Your task to perform on an android device: What is the speed of a plane? Image 0: 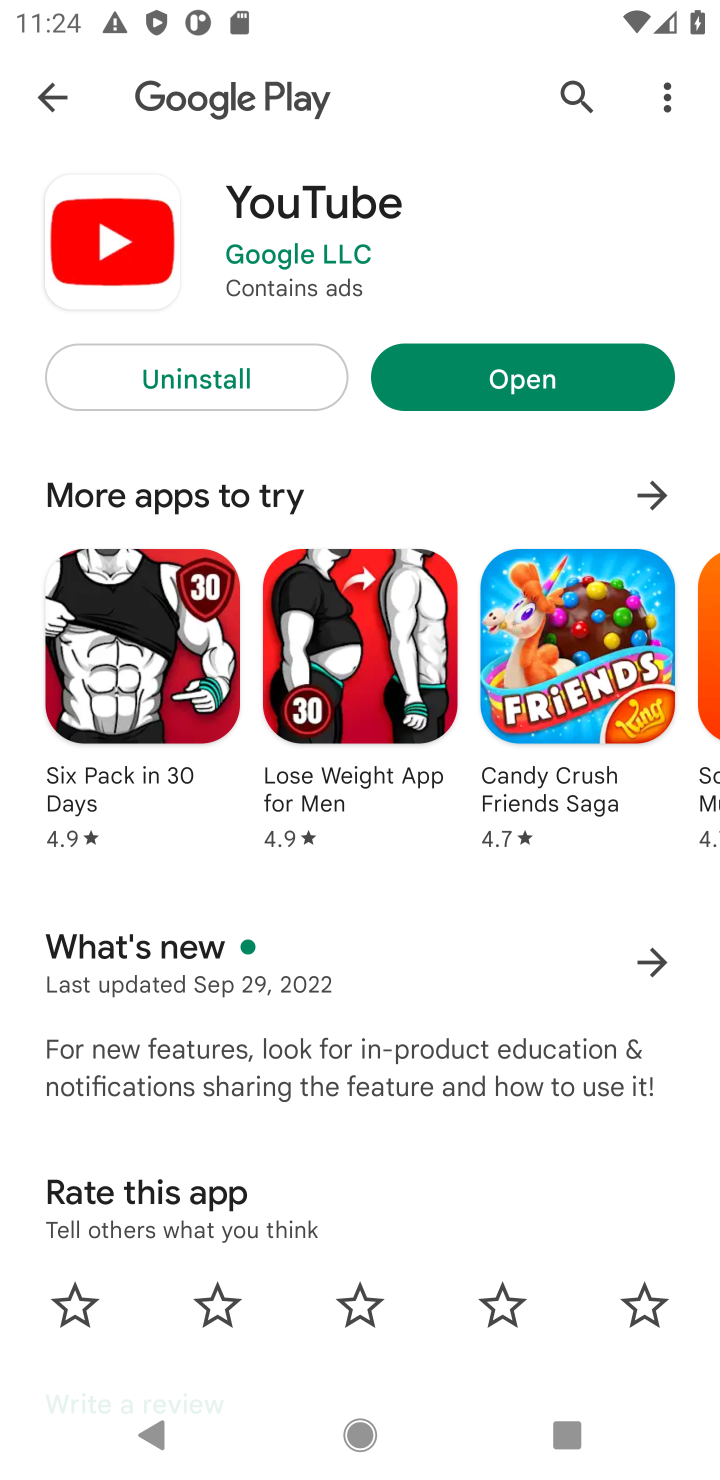
Step 0: press home button
Your task to perform on an android device: What is the speed of a plane? Image 1: 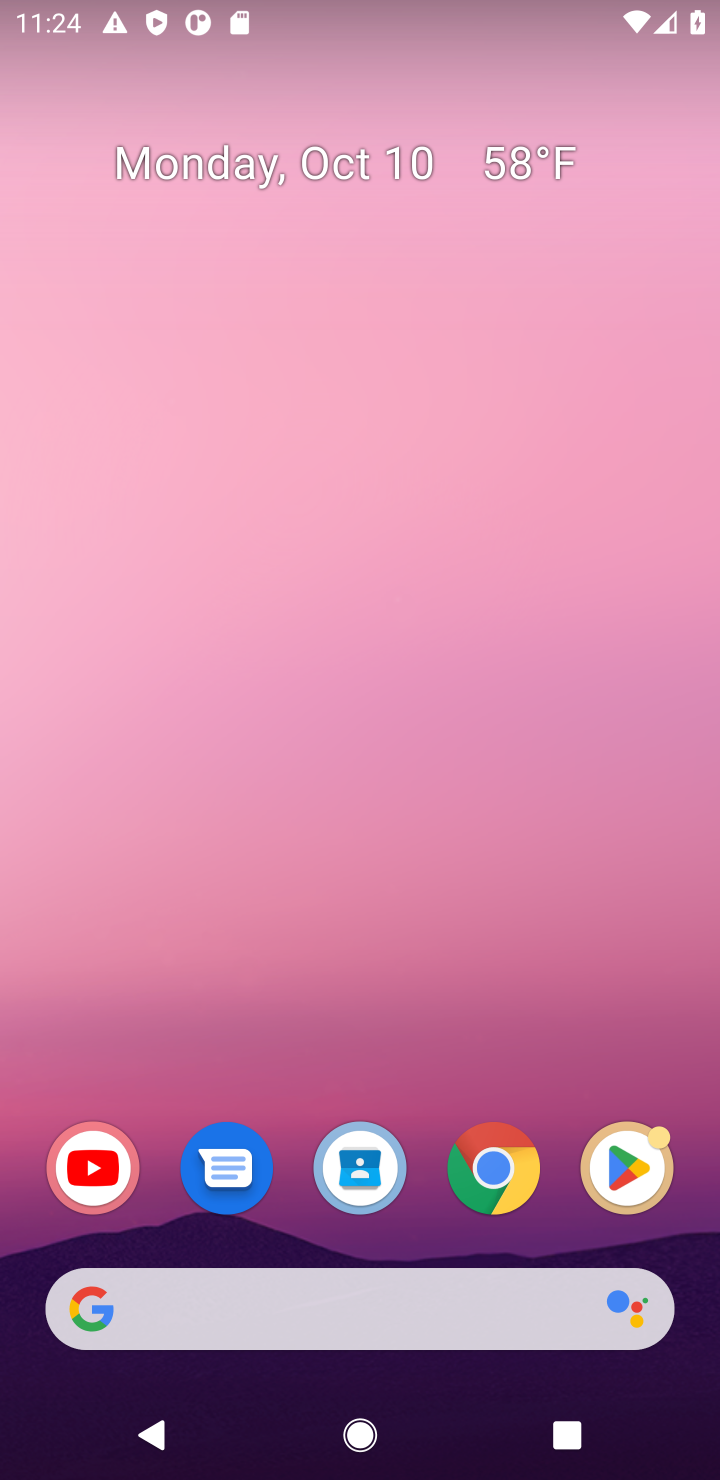
Step 1: click (268, 1300)
Your task to perform on an android device: What is the speed of a plane? Image 2: 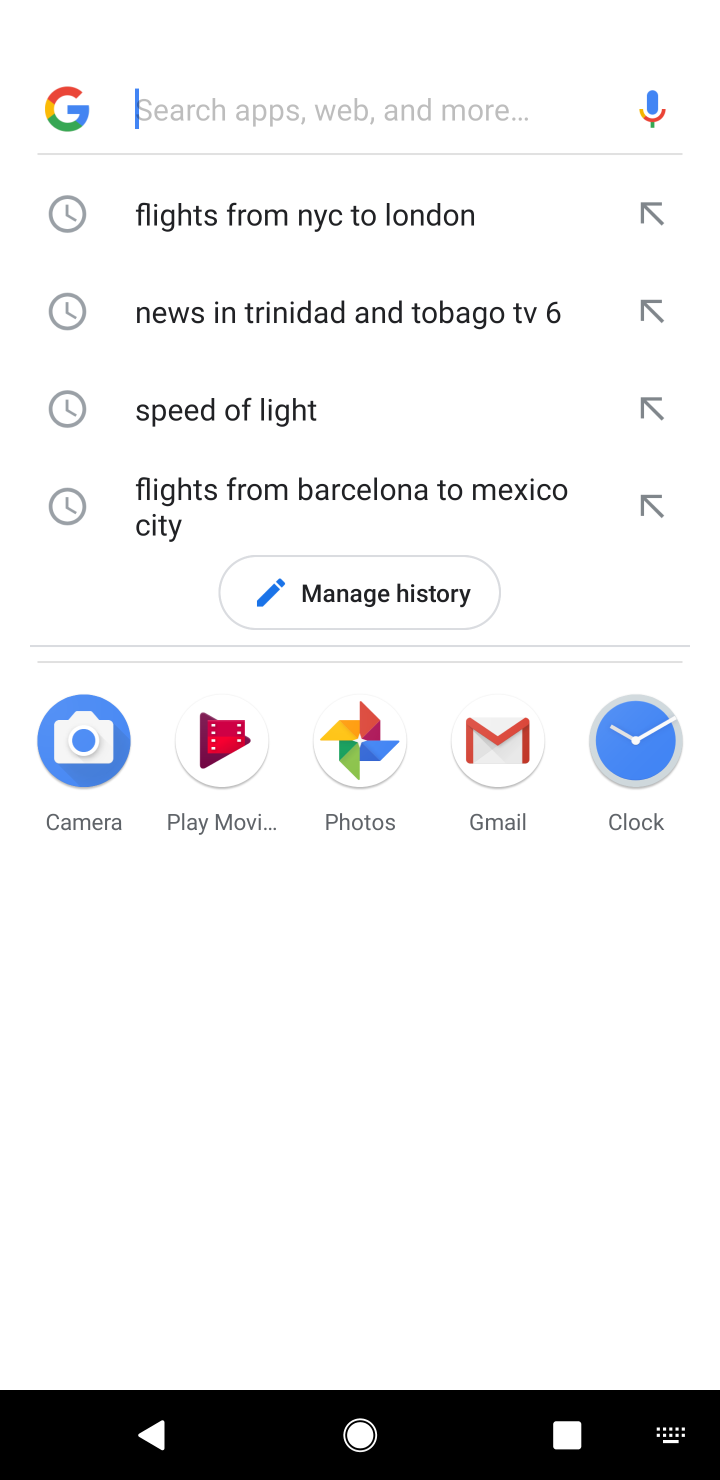
Step 2: type "speed of a plane?"
Your task to perform on an android device: What is the speed of a plane? Image 3: 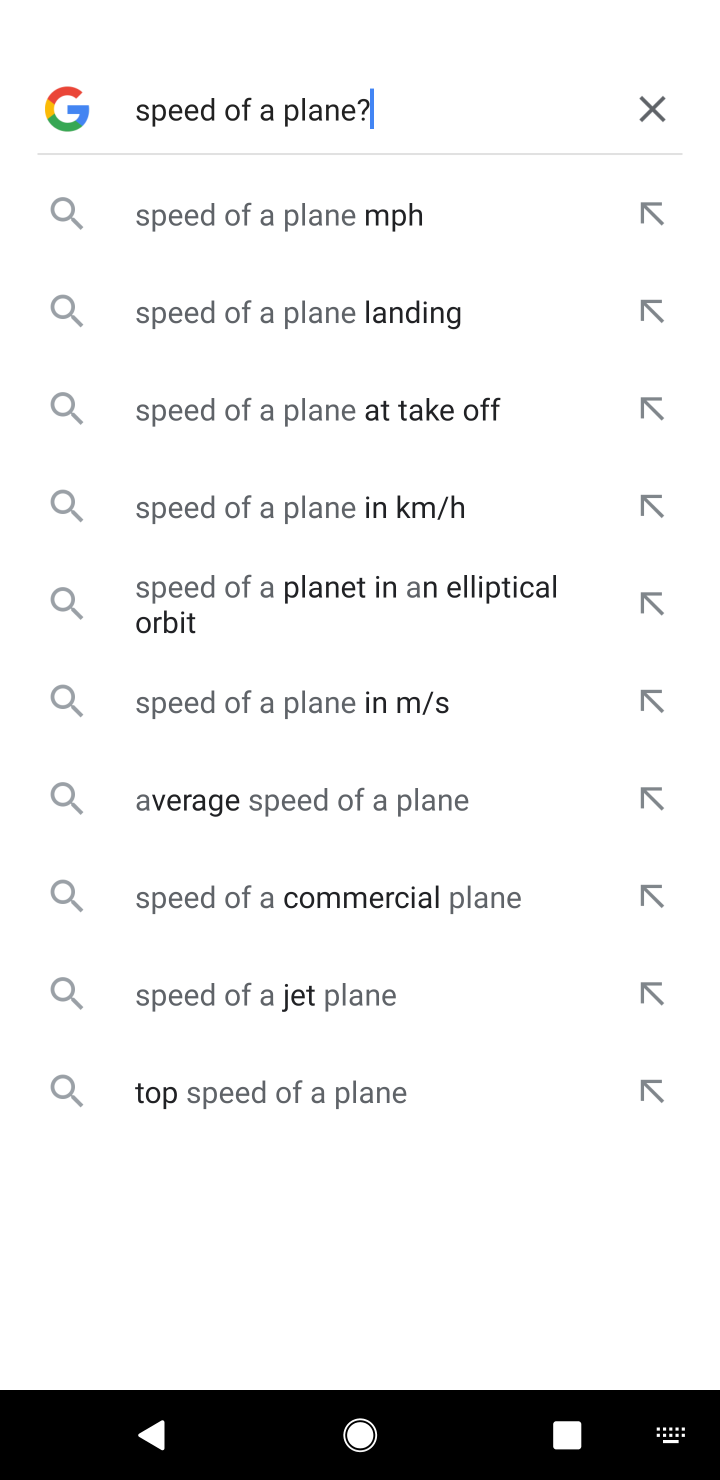
Step 3: click (231, 204)
Your task to perform on an android device: What is the speed of a plane? Image 4: 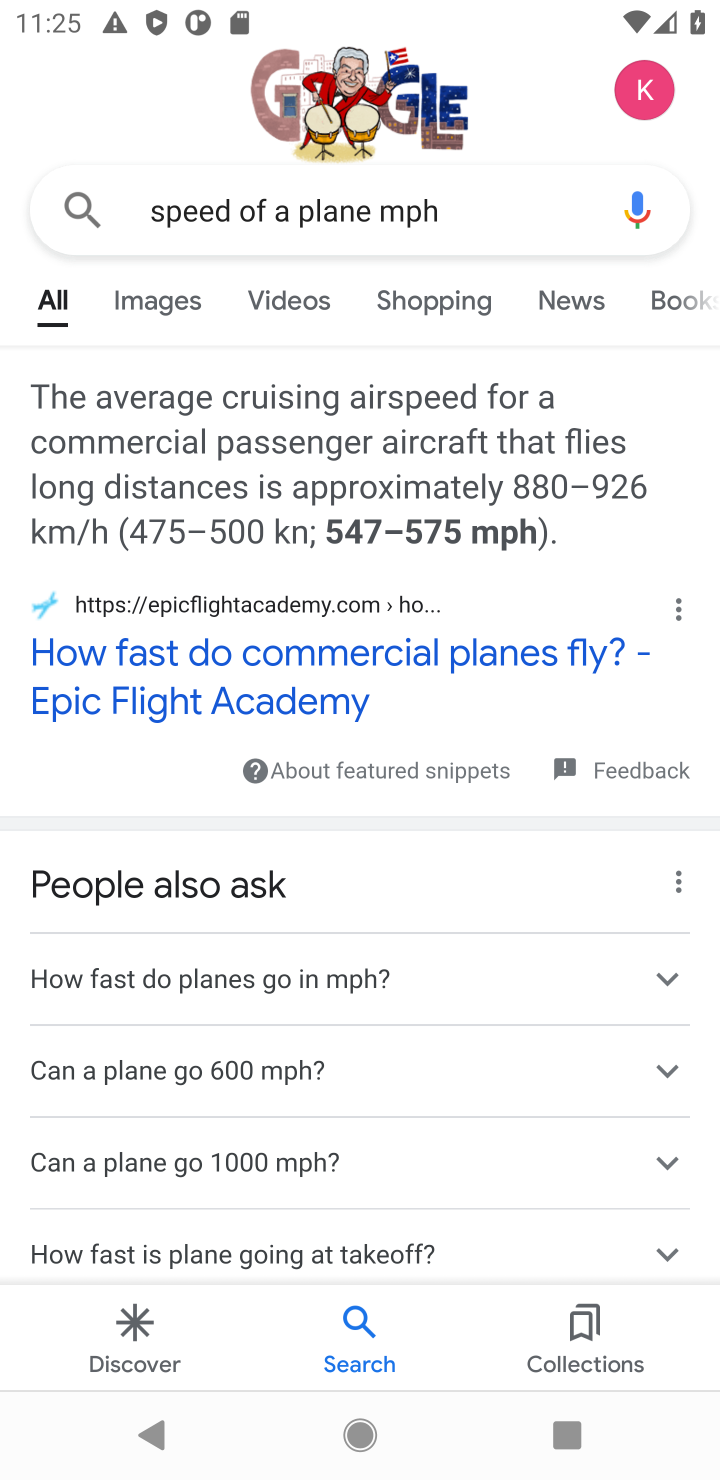
Step 4: task complete